Your task to perform on an android device: Search for seafood restaurants on Google Maps Image 0: 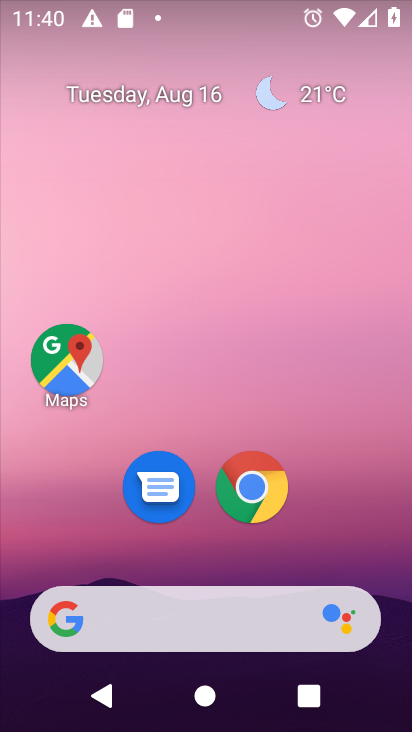
Step 0: click (75, 371)
Your task to perform on an android device: Search for seafood restaurants on Google Maps Image 1: 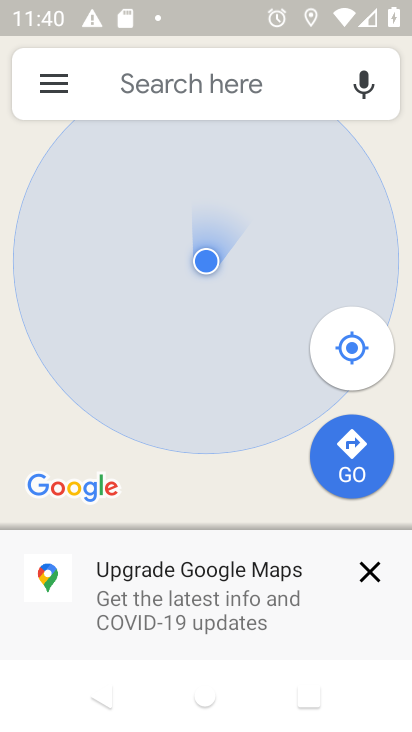
Step 1: click (208, 79)
Your task to perform on an android device: Search for seafood restaurants on Google Maps Image 2: 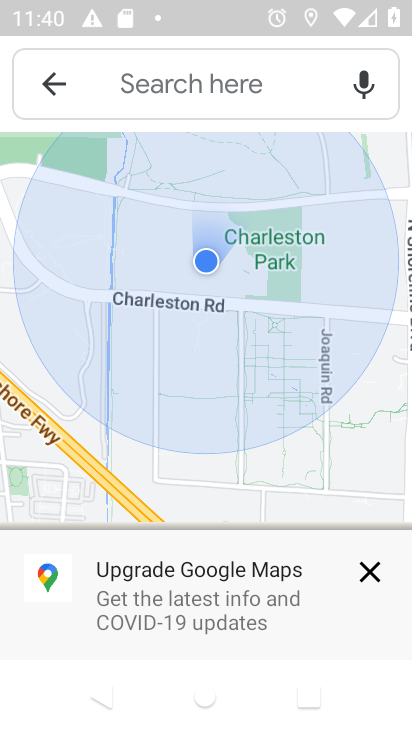
Step 2: click (164, 90)
Your task to perform on an android device: Search for seafood restaurants on Google Maps Image 3: 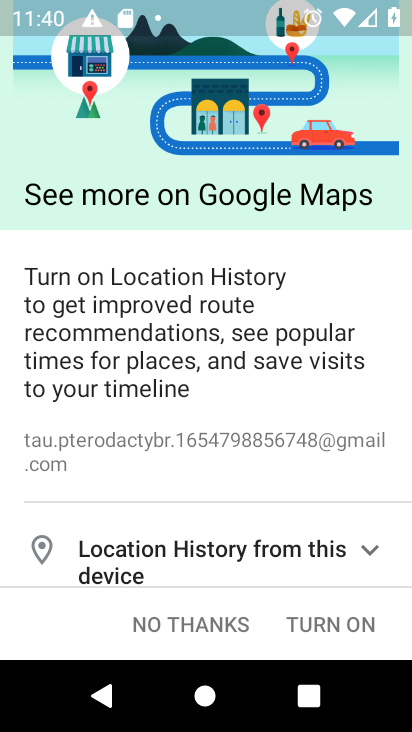
Step 3: click (183, 620)
Your task to perform on an android device: Search for seafood restaurants on Google Maps Image 4: 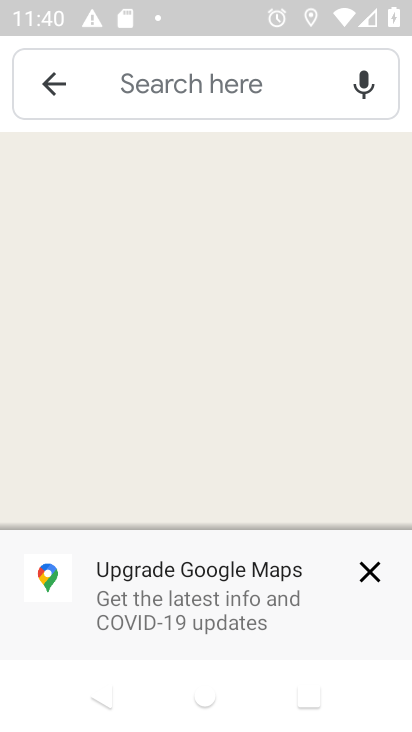
Step 4: click (190, 65)
Your task to perform on an android device: Search for seafood restaurants on Google Maps Image 5: 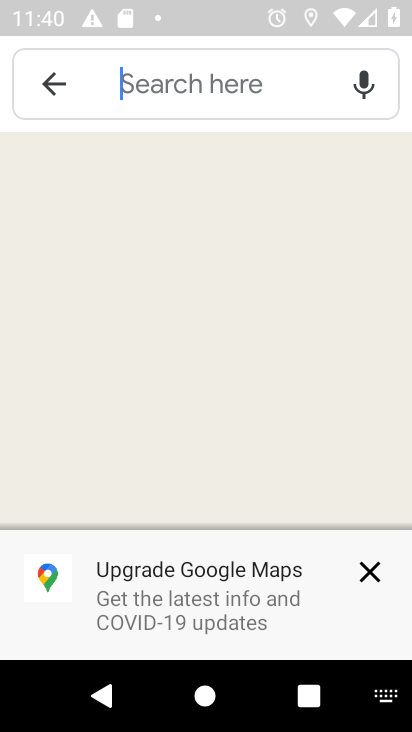
Step 5: click (184, 84)
Your task to perform on an android device: Search for seafood restaurants on Google Maps Image 6: 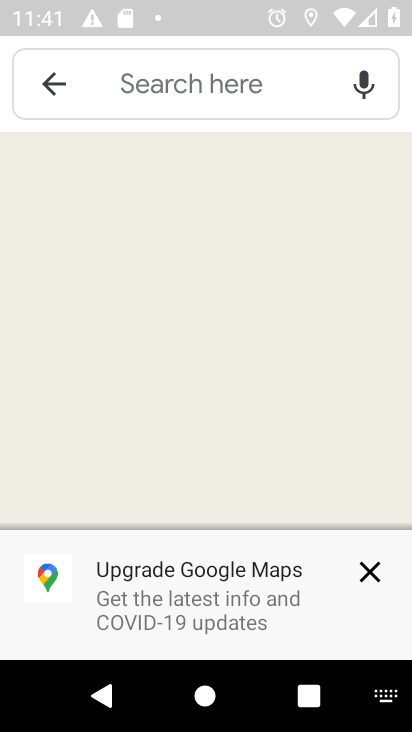
Step 6: type "seafood restaur"
Your task to perform on an android device: Search for seafood restaurants on Google Maps Image 7: 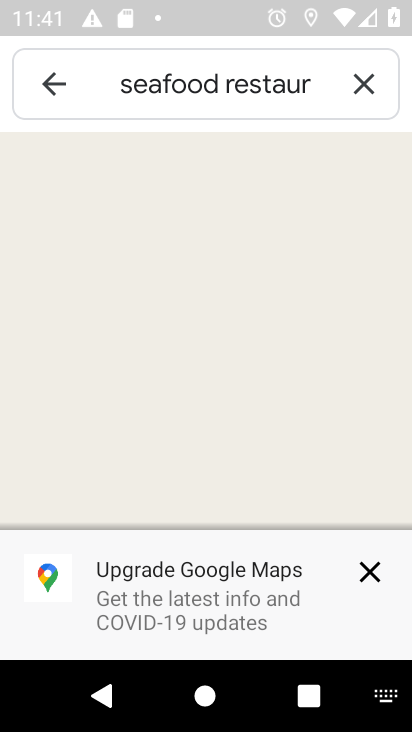
Step 7: press back button
Your task to perform on an android device: Search for seafood restaurants on Google Maps Image 8: 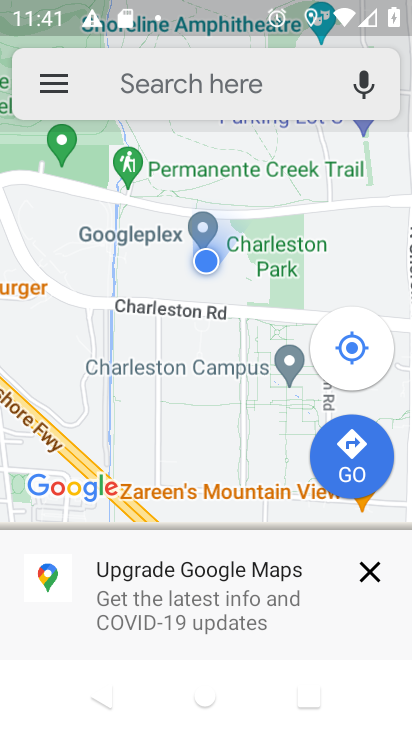
Step 8: click (195, 77)
Your task to perform on an android device: Search for seafood restaurants on Google Maps Image 9: 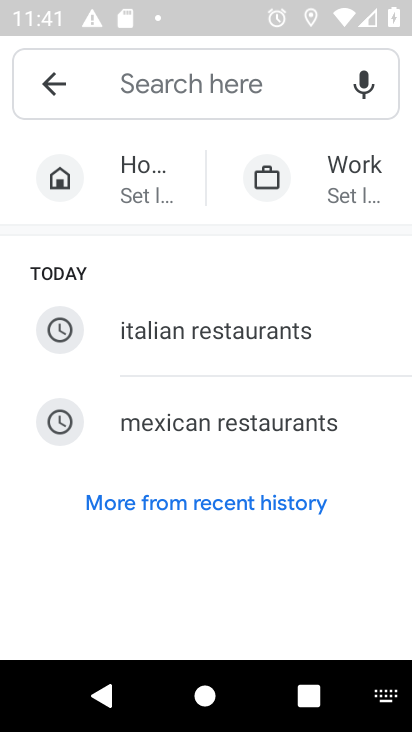
Step 9: type "seafood restaurants"
Your task to perform on an android device: Search for seafood restaurants on Google Maps Image 10: 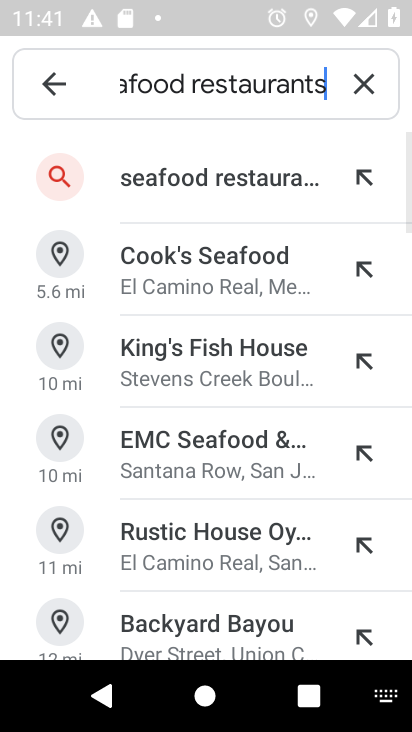
Step 10: click (169, 176)
Your task to perform on an android device: Search for seafood restaurants on Google Maps Image 11: 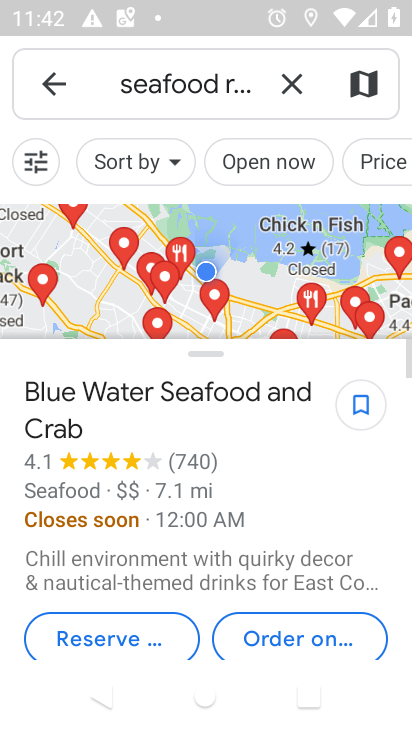
Step 11: task complete